Your task to perform on an android device: Open the web browser Image 0: 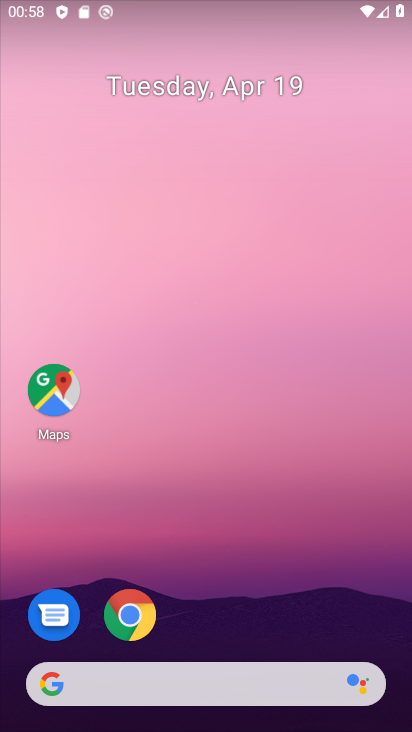
Step 0: click (119, 624)
Your task to perform on an android device: Open the web browser Image 1: 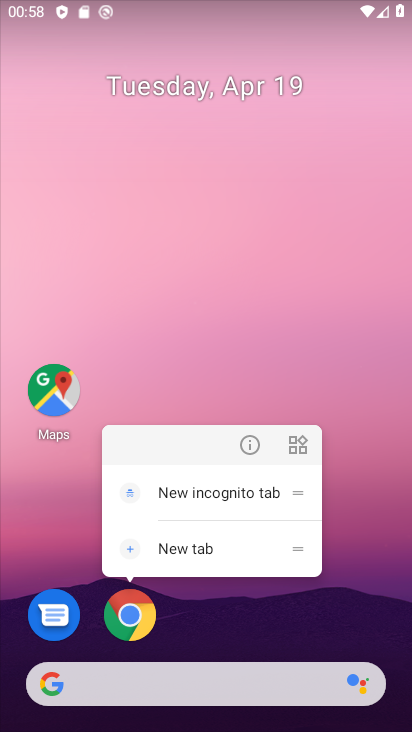
Step 1: click (123, 614)
Your task to perform on an android device: Open the web browser Image 2: 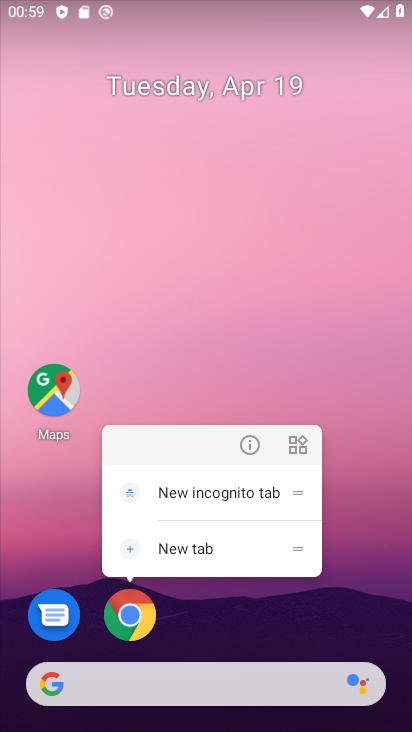
Step 2: click (123, 614)
Your task to perform on an android device: Open the web browser Image 3: 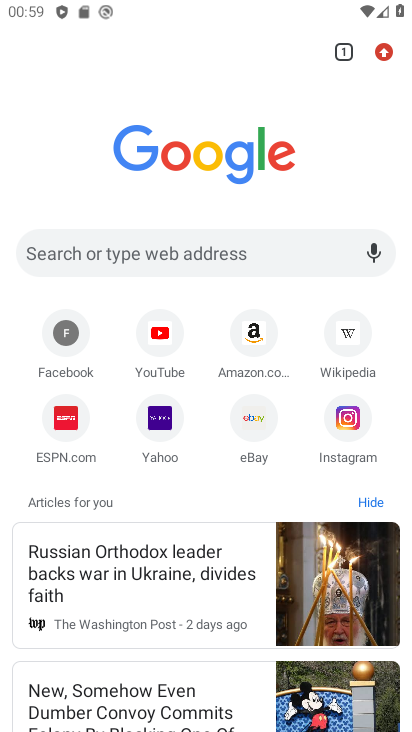
Step 3: task complete